Your task to perform on an android device: change the upload size in google photos Image 0: 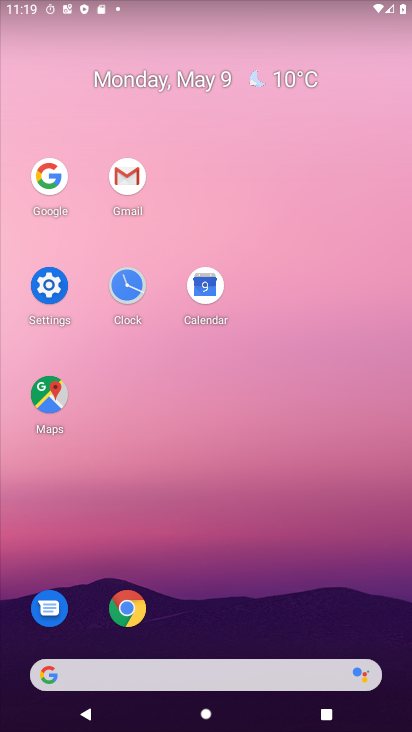
Step 0: drag from (294, 649) to (300, 72)
Your task to perform on an android device: change the upload size in google photos Image 1: 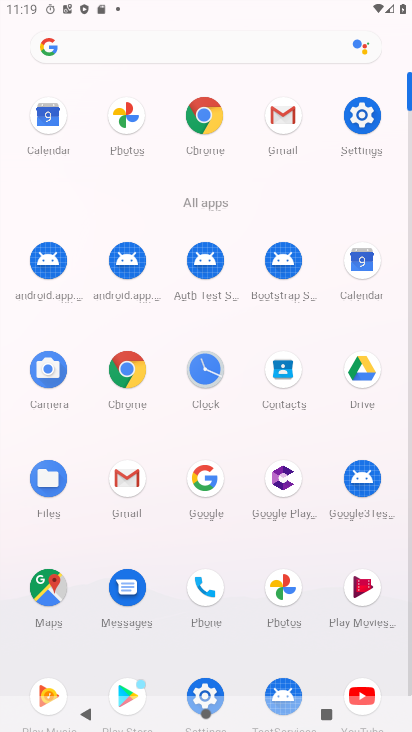
Step 1: drag from (291, 585) to (116, 365)
Your task to perform on an android device: change the upload size in google photos Image 2: 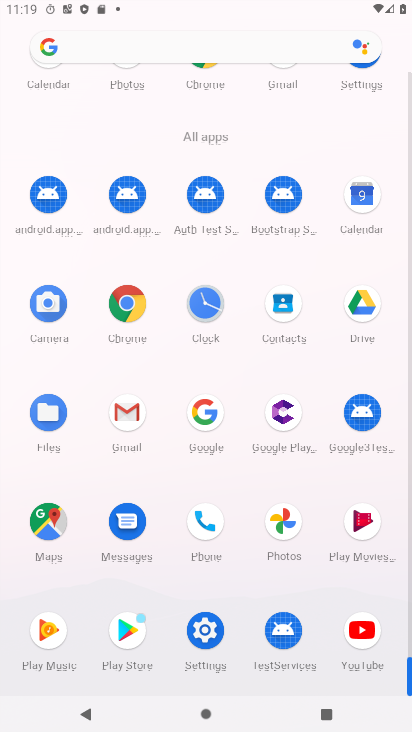
Step 2: drag from (271, 527) to (137, 409)
Your task to perform on an android device: change the upload size in google photos Image 3: 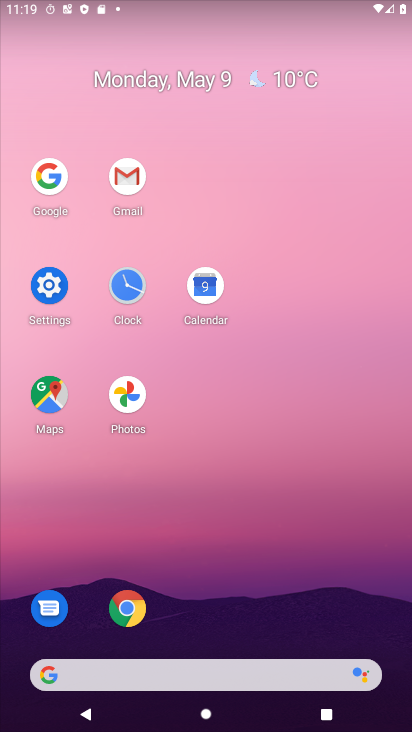
Step 3: click (134, 401)
Your task to perform on an android device: change the upload size in google photos Image 4: 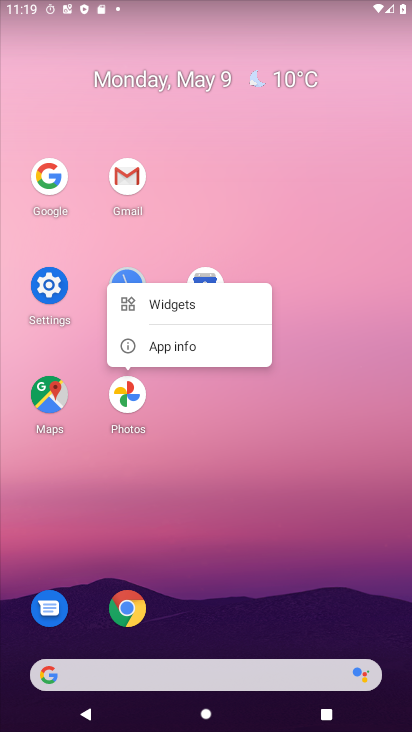
Step 4: click (134, 401)
Your task to perform on an android device: change the upload size in google photos Image 5: 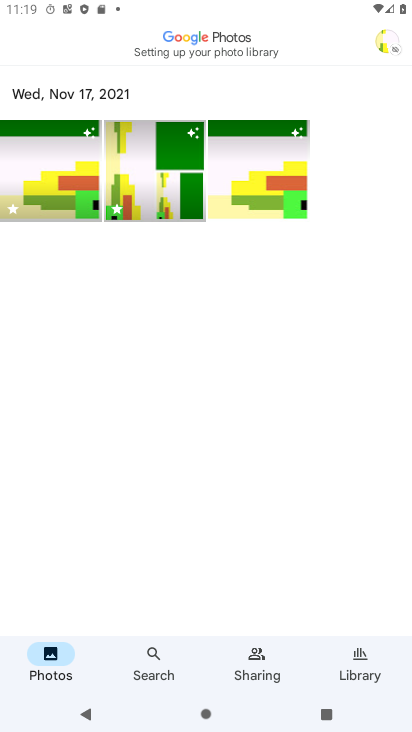
Step 5: click (386, 43)
Your task to perform on an android device: change the upload size in google photos Image 6: 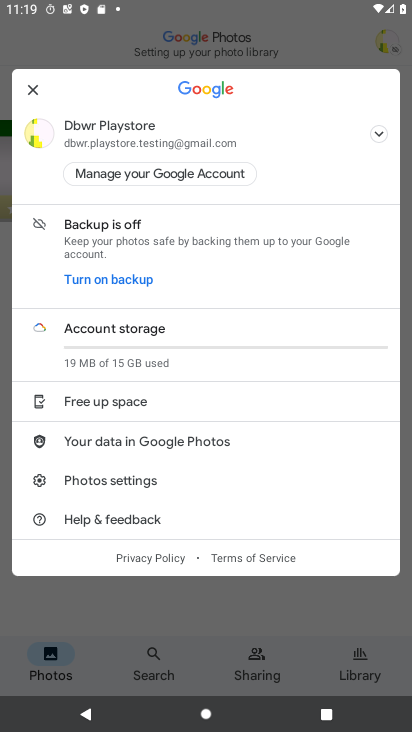
Step 6: click (173, 480)
Your task to perform on an android device: change the upload size in google photos Image 7: 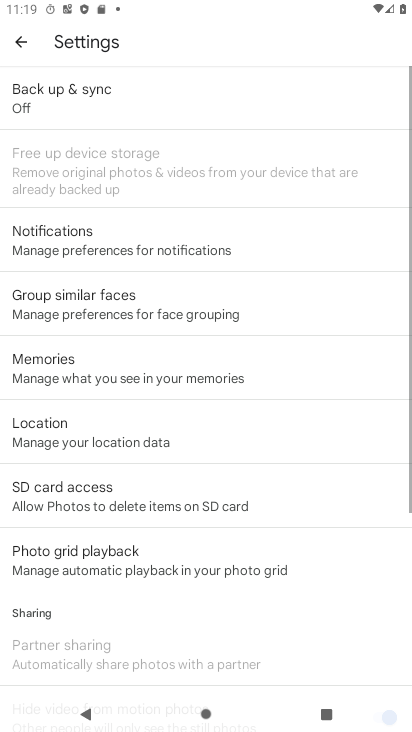
Step 7: click (69, 97)
Your task to perform on an android device: change the upload size in google photos Image 8: 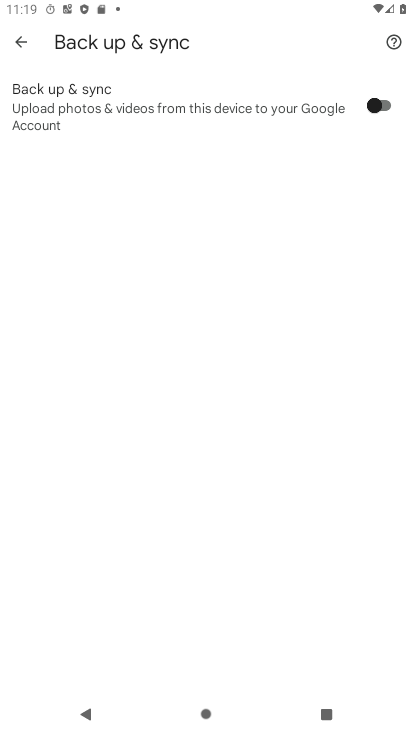
Step 8: click (379, 100)
Your task to perform on an android device: change the upload size in google photos Image 9: 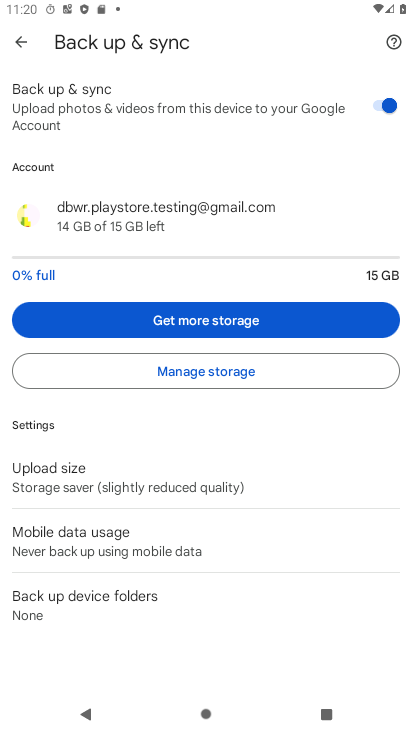
Step 9: click (207, 472)
Your task to perform on an android device: change the upload size in google photos Image 10: 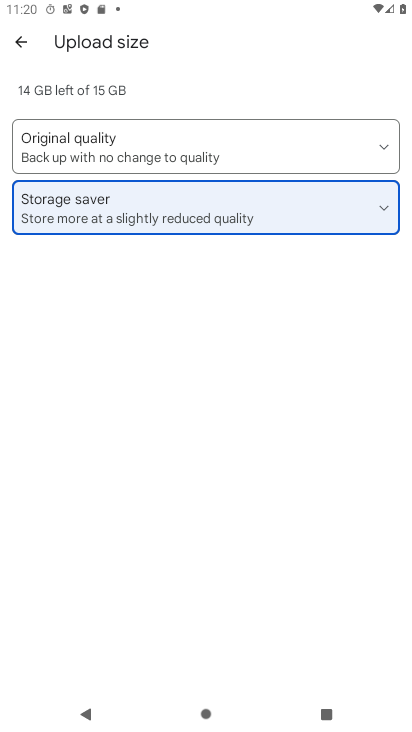
Step 10: click (246, 139)
Your task to perform on an android device: change the upload size in google photos Image 11: 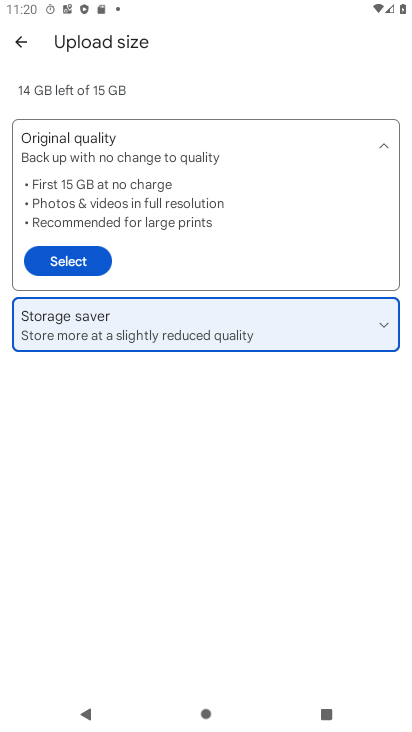
Step 11: click (78, 269)
Your task to perform on an android device: change the upload size in google photos Image 12: 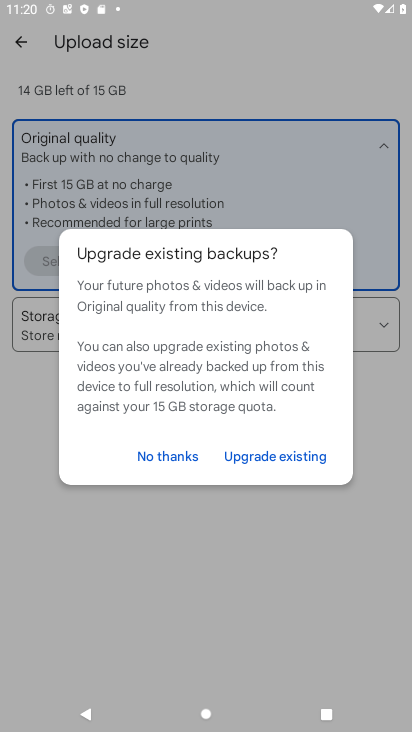
Step 12: click (275, 455)
Your task to perform on an android device: change the upload size in google photos Image 13: 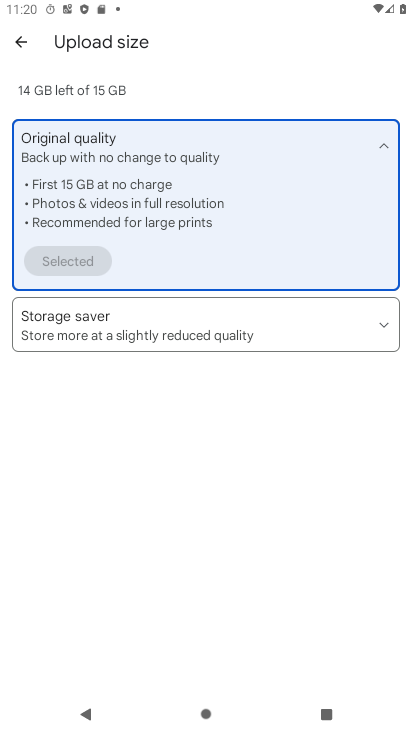
Step 13: task complete